Your task to perform on an android device: uninstall "Upside-Cash back on gas & food" Image 0: 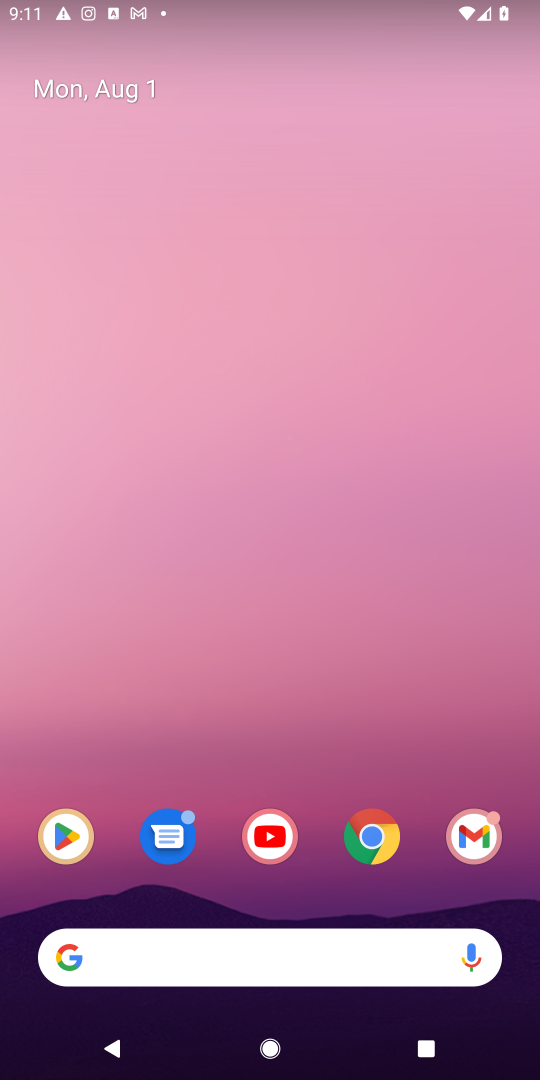
Step 0: press home button
Your task to perform on an android device: uninstall "Upside-Cash back on gas & food" Image 1: 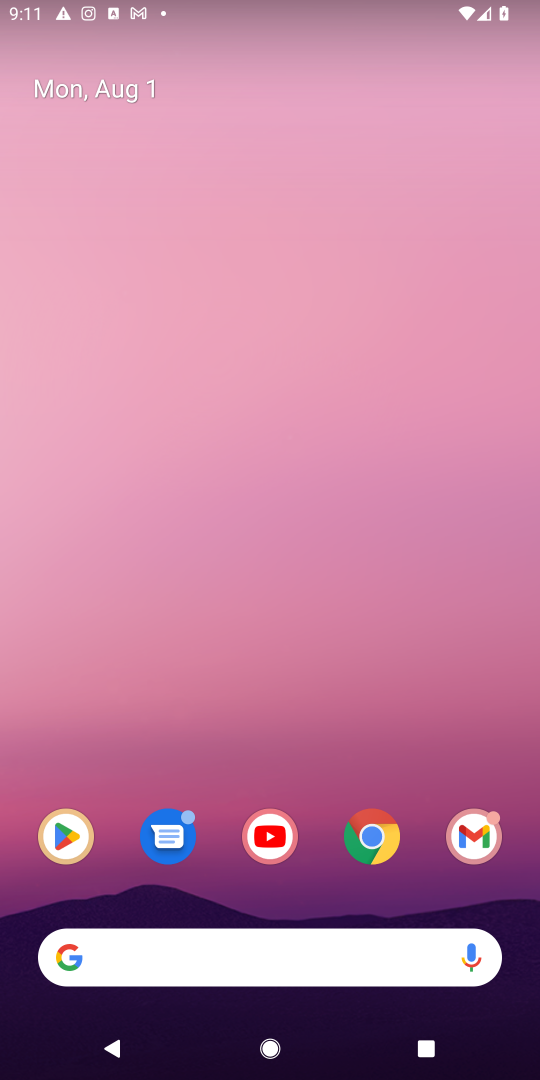
Step 1: click (72, 819)
Your task to perform on an android device: uninstall "Upside-Cash back on gas & food" Image 2: 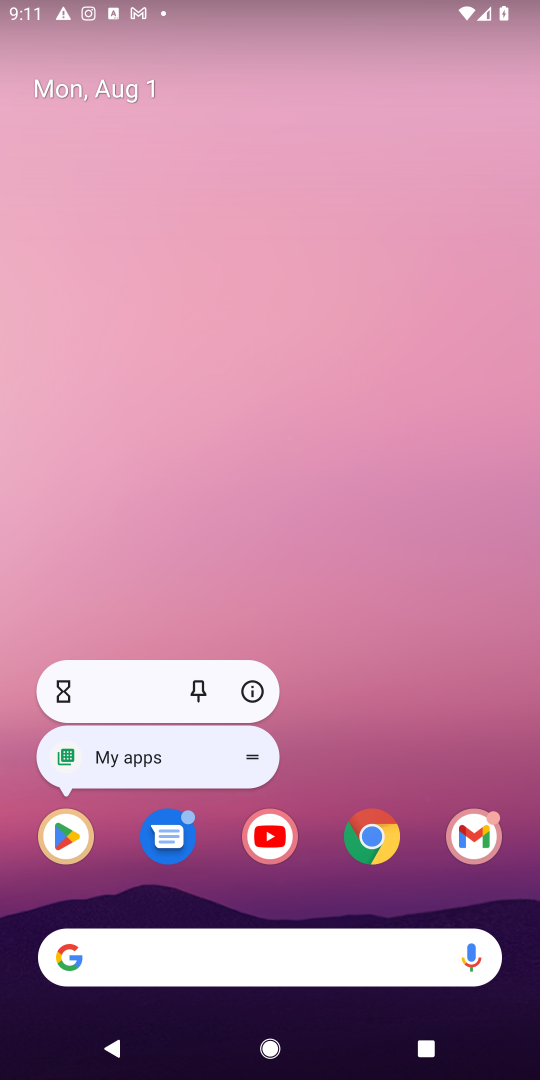
Step 2: click (61, 837)
Your task to perform on an android device: uninstall "Upside-Cash back on gas & food" Image 3: 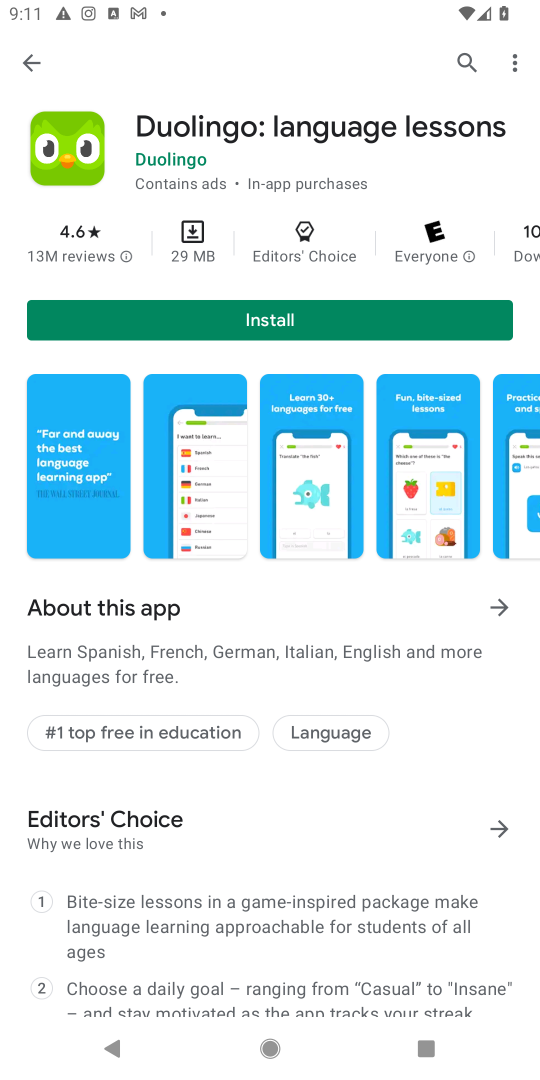
Step 3: click (458, 57)
Your task to perform on an android device: uninstall "Upside-Cash back on gas & food" Image 4: 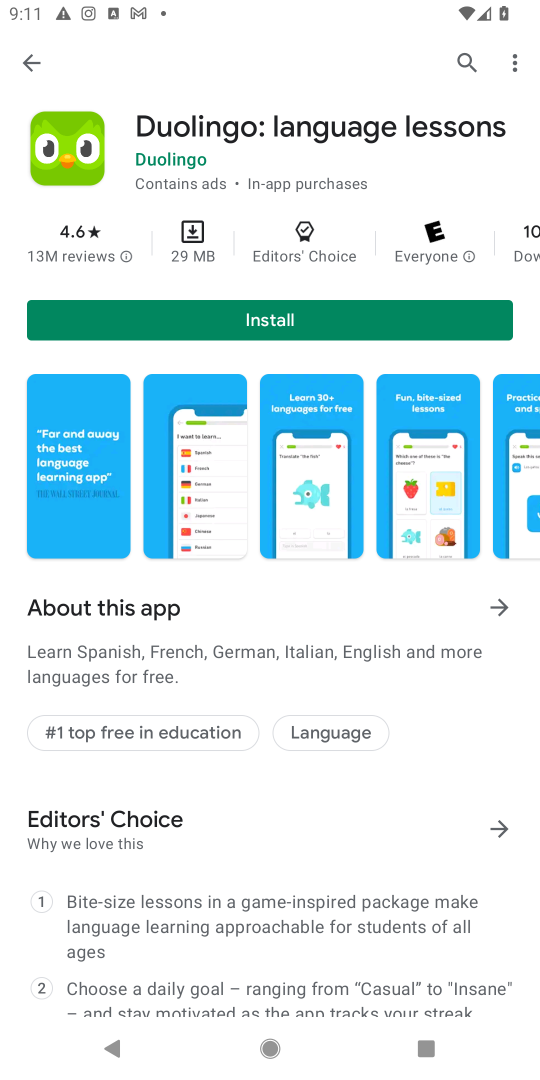
Step 4: click (459, 59)
Your task to perform on an android device: uninstall "Upside-Cash back on gas & food" Image 5: 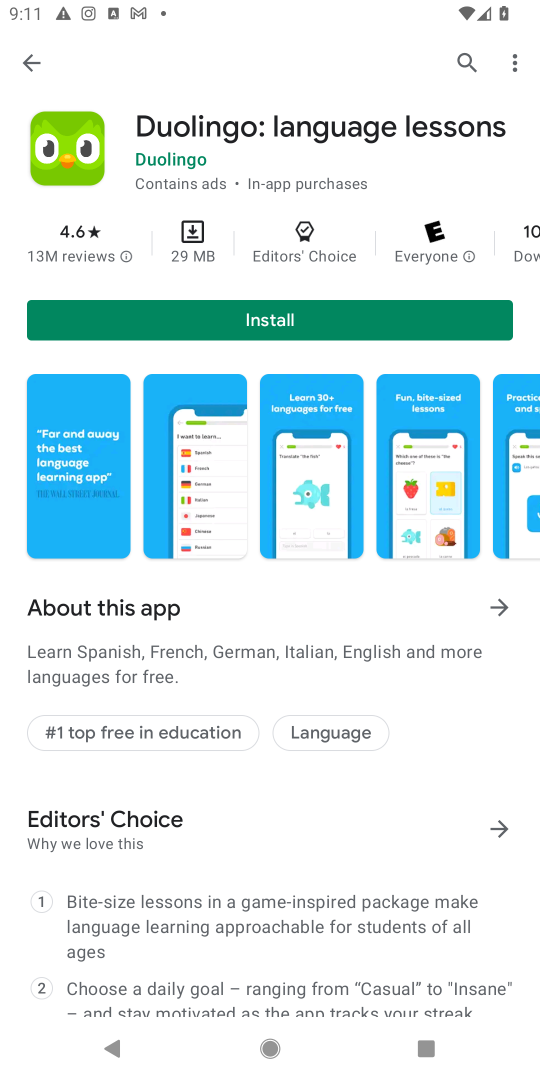
Step 5: click (464, 51)
Your task to perform on an android device: uninstall "Upside-Cash back on gas & food" Image 6: 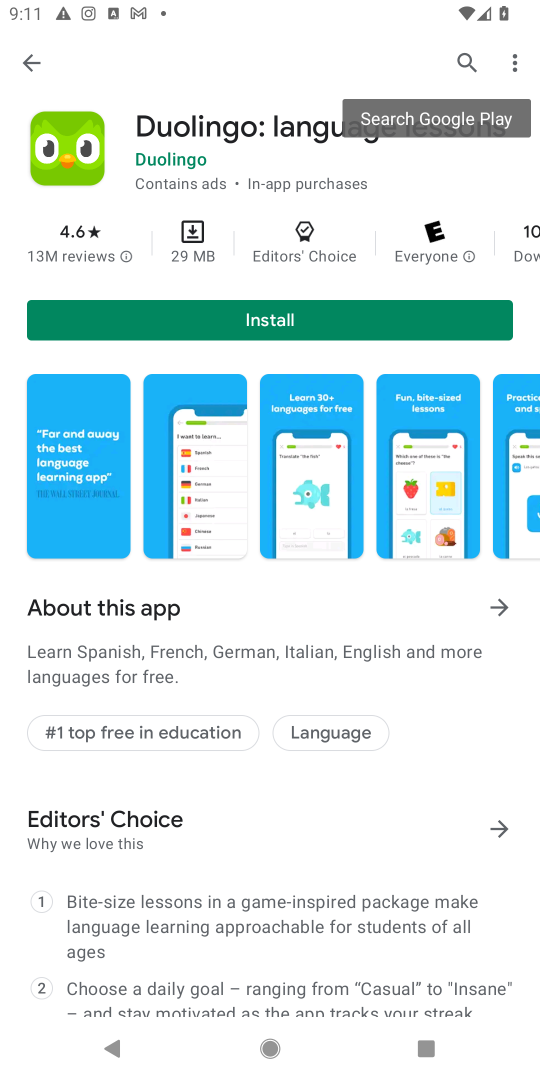
Step 6: click (463, 57)
Your task to perform on an android device: uninstall "Upside-Cash back on gas & food" Image 7: 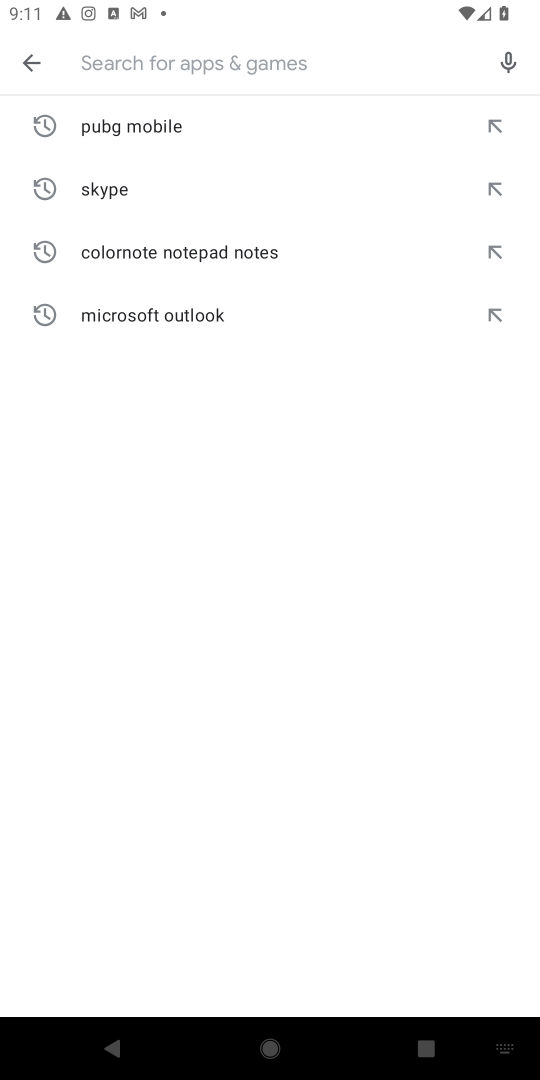
Step 7: type "Upside-Cash back on gas & food"
Your task to perform on an android device: uninstall "Upside-Cash back on gas & food" Image 8: 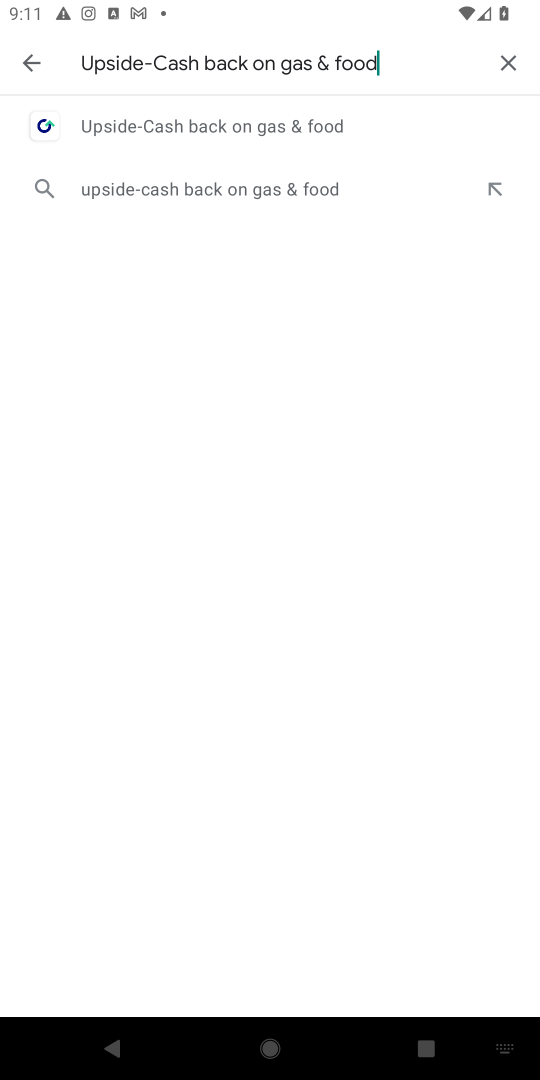
Step 8: click (243, 126)
Your task to perform on an android device: uninstall "Upside-Cash back on gas & food" Image 9: 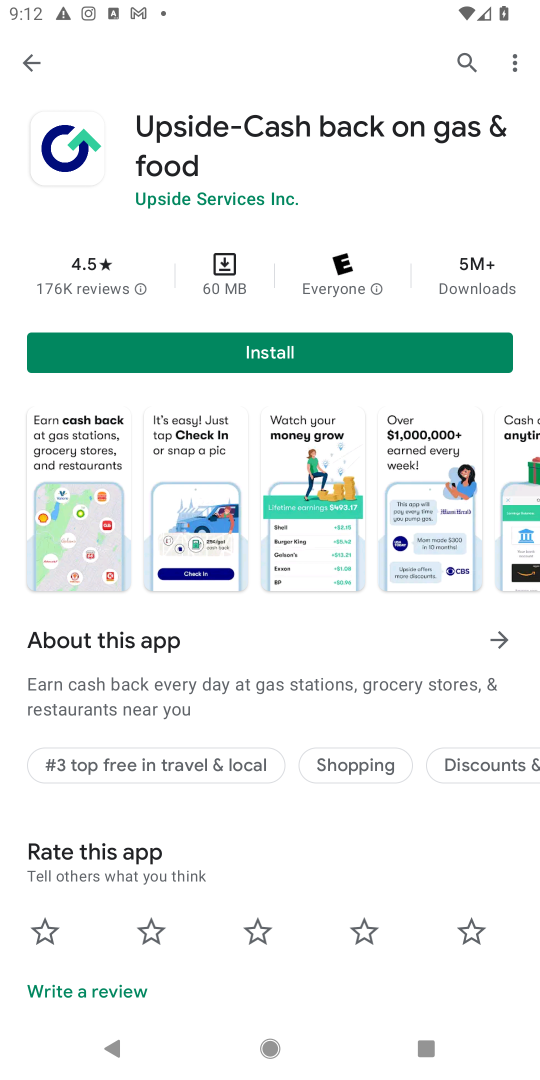
Step 9: task complete